Your task to perform on an android device: Open Chrome and go to settings Image 0: 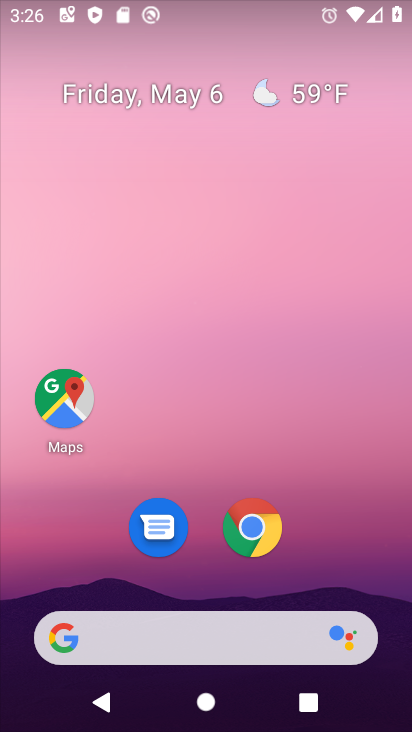
Step 0: drag from (336, 574) to (343, 155)
Your task to perform on an android device: Open Chrome and go to settings Image 1: 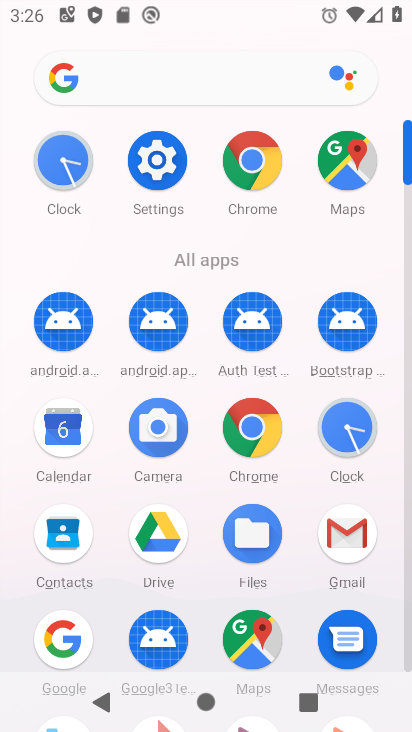
Step 1: click (254, 438)
Your task to perform on an android device: Open Chrome and go to settings Image 2: 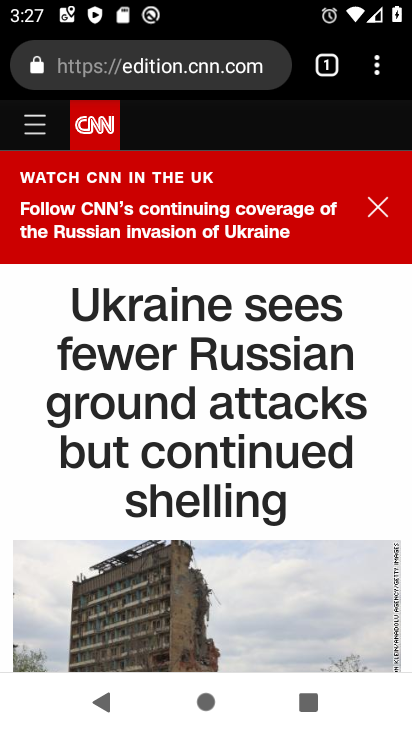
Step 2: task complete